Your task to perform on an android device: Open internet settings Image 0: 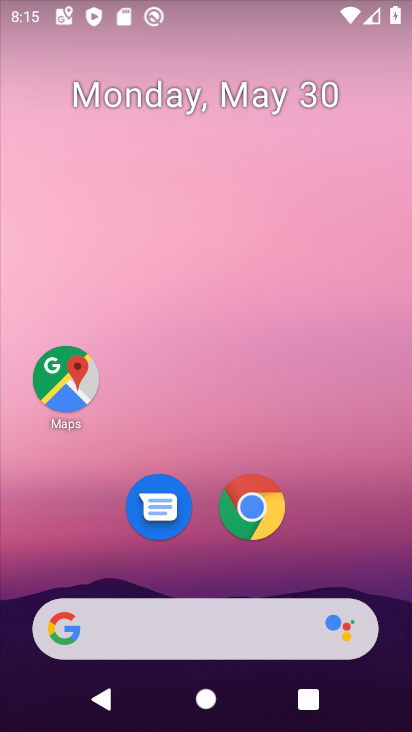
Step 0: drag from (206, 572) to (236, 114)
Your task to perform on an android device: Open internet settings Image 1: 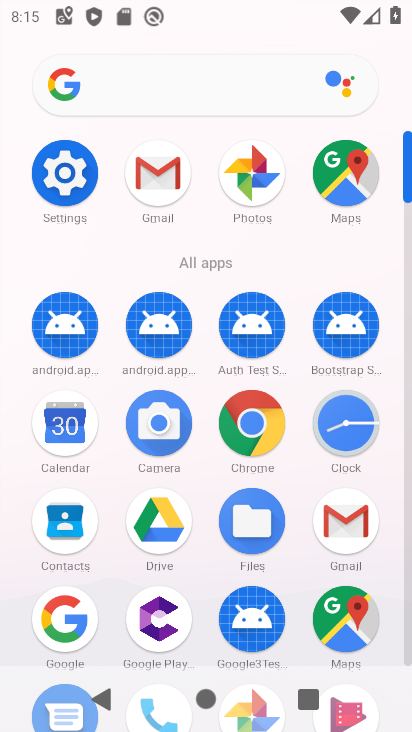
Step 1: click (72, 200)
Your task to perform on an android device: Open internet settings Image 2: 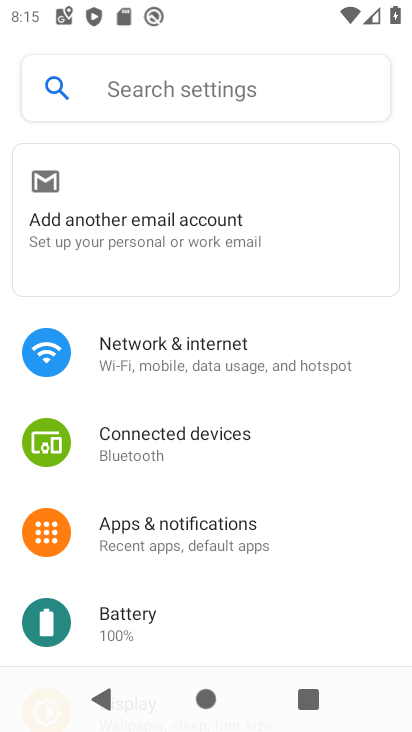
Step 2: click (225, 371)
Your task to perform on an android device: Open internet settings Image 3: 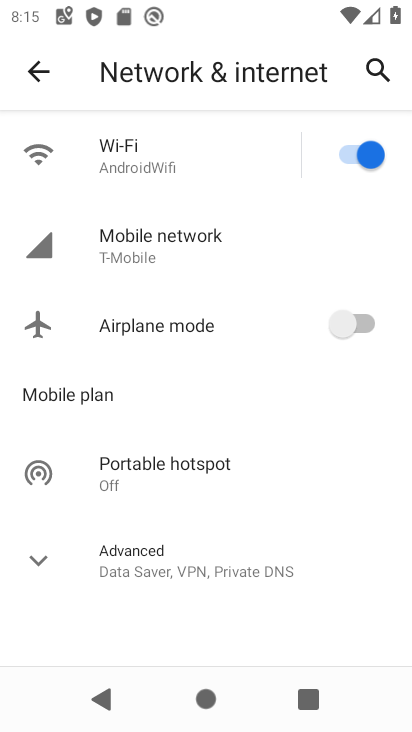
Step 3: task complete